Your task to perform on an android device: search for starred emails in the gmail app Image 0: 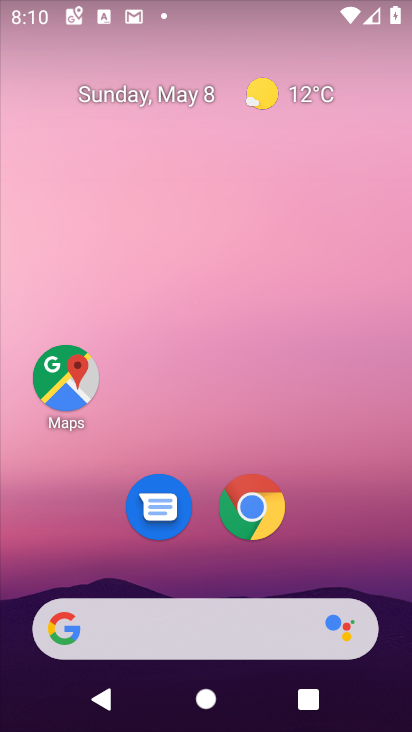
Step 0: drag from (244, 686) to (140, 67)
Your task to perform on an android device: search for starred emails in the gmail app Image 1: 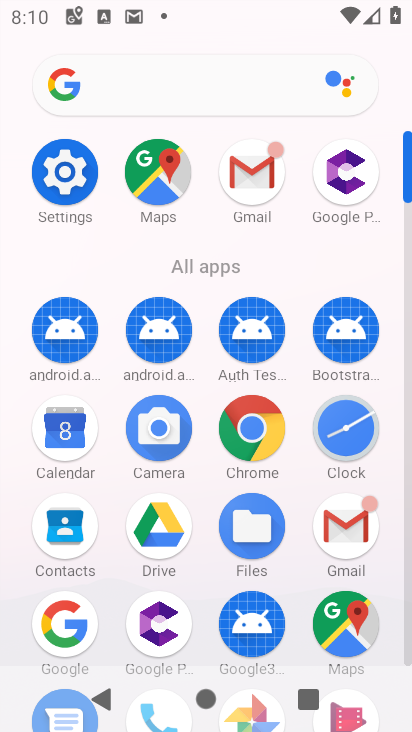
Step 1: click (245, 163)
Your task to perform on an android device: search for starred emails in the gmail app Image 2: 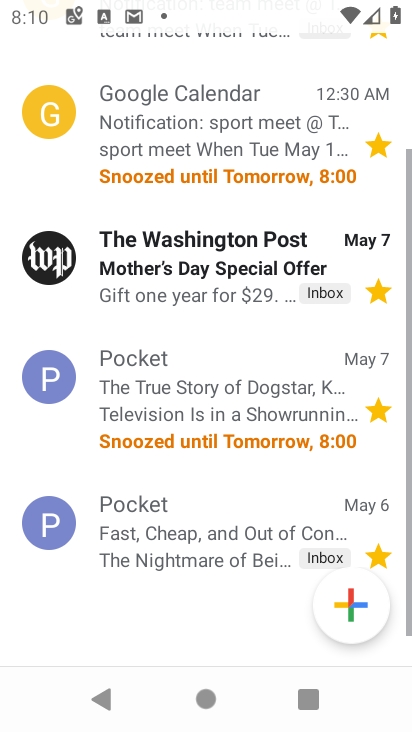
Step 2: drag from (278, 132) to (252, 719)
Your task to perform on an android device: search for starred emails in the gmail app Image 3: 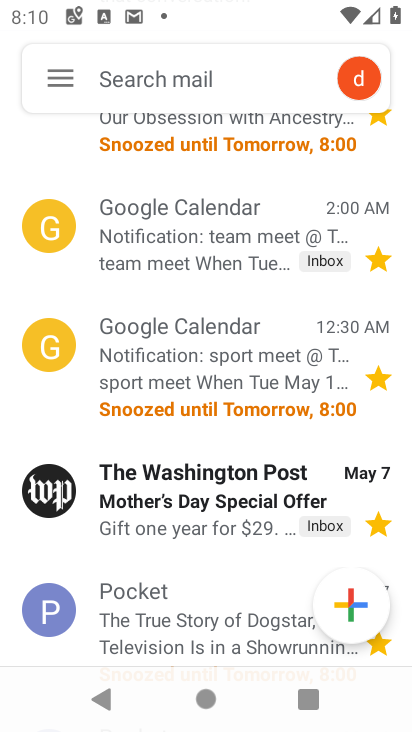
Step 3: click (58, 66)
Your task to perform on an android device: search for starred emails in the gmail app Image 4: 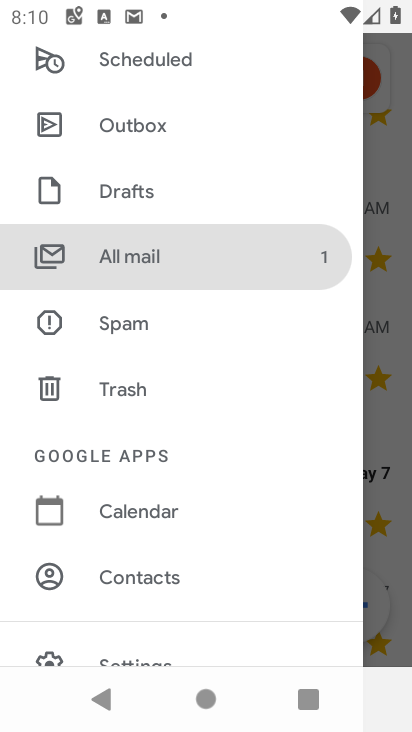
Step 4: drag from (202, 88) to (124, 545)
Your task to perform on an android device: search for starred emails in the gmail app Image 5: 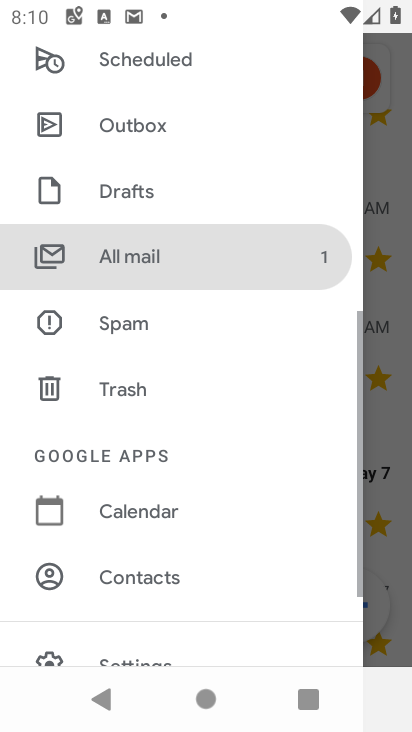
Step 5: drag from (163, 119) to (149, 730)
Your task to perform on an android device: search for starred emails in the gmail app Image 6: 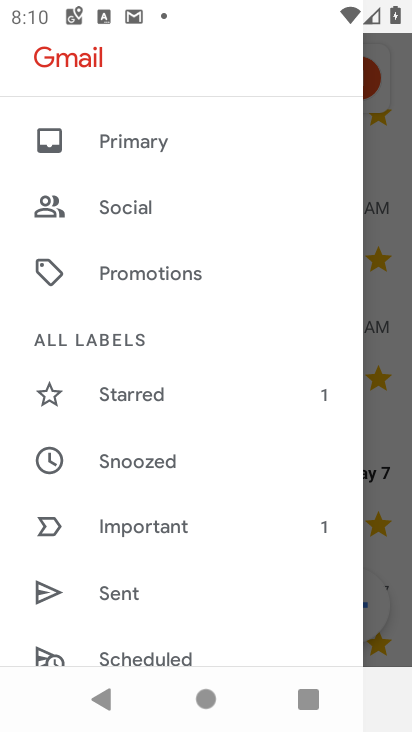
Step 6: click (150, 393)
Your task to perform on an android device: search for starred emails in the gmail app Image 7: 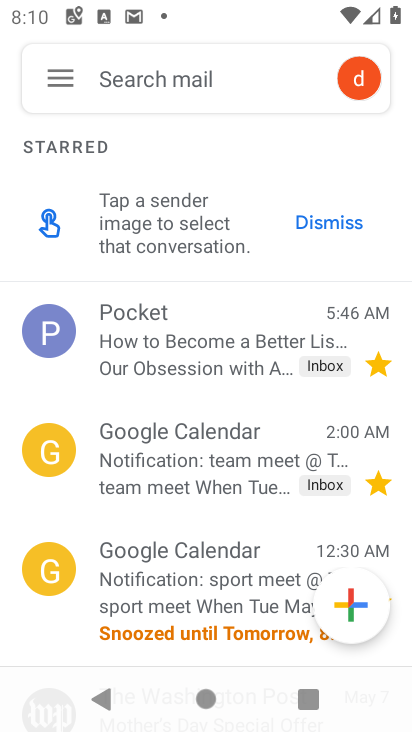
Step 7: task complete